Your task to perform on an android device: Open Chrome and go to settings Image 0: 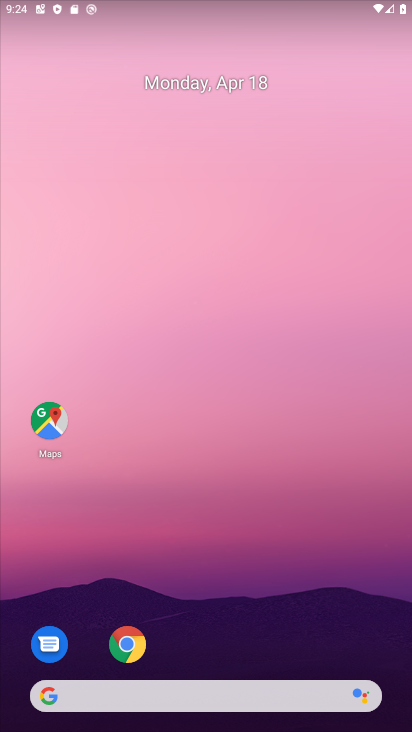
Step 0: click (133, 647)
Your task to perform on an android device: Open Chrome and go to settings Image 1: 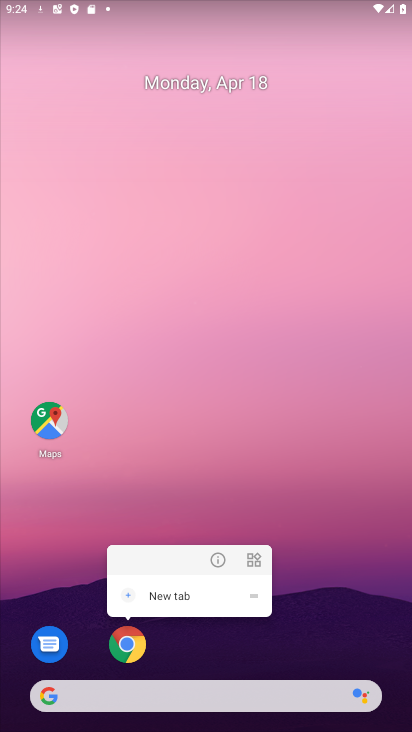
Step 1: click (122, 644)
Your task to perform on an android device: Open Chrome and go to settings Image 2: 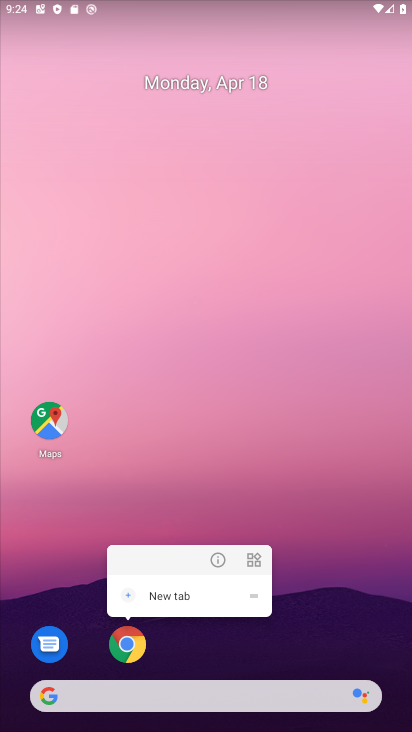
Step 2: click (119, 646)
Your task to perform on an android device: Open Chrome and go to settings Image 3: 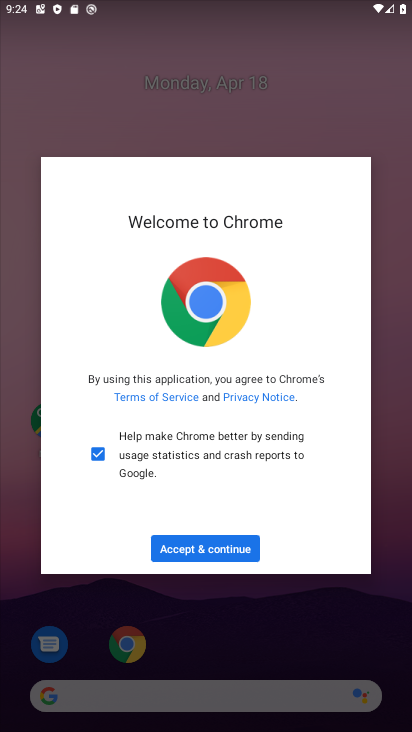
Step 3: click (226, 550)
Your task to perform on an android device: Open Chrome and go to settings Image 4: 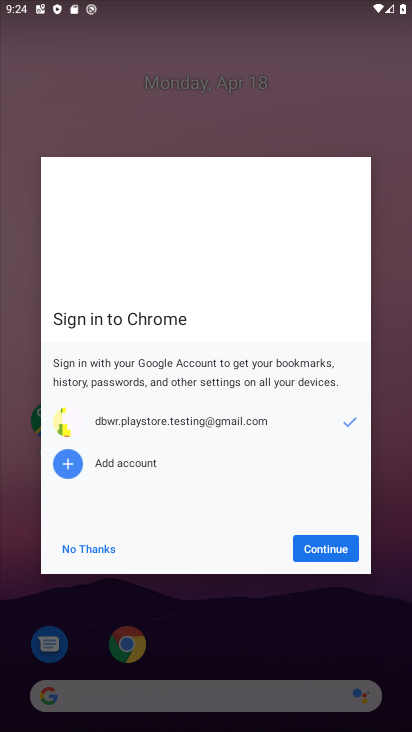
Step 4: click (303, 540)
Your task to perform on an android device: Open Chrome and go to settings Image 5: 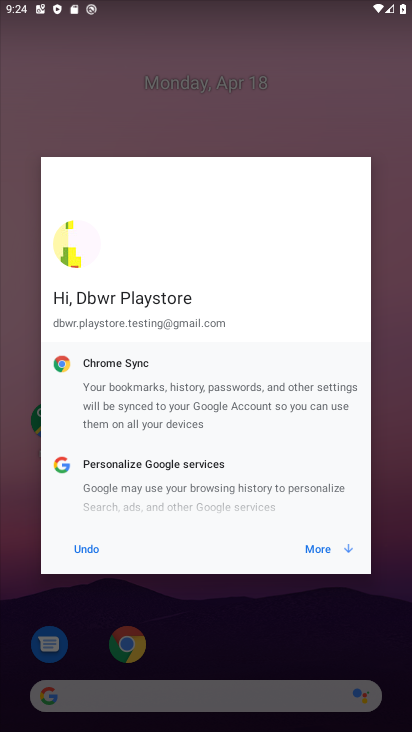
Step 5: click (307, 546)
Your task to perform on an android device: Open Chrome and go to settings Image 6: 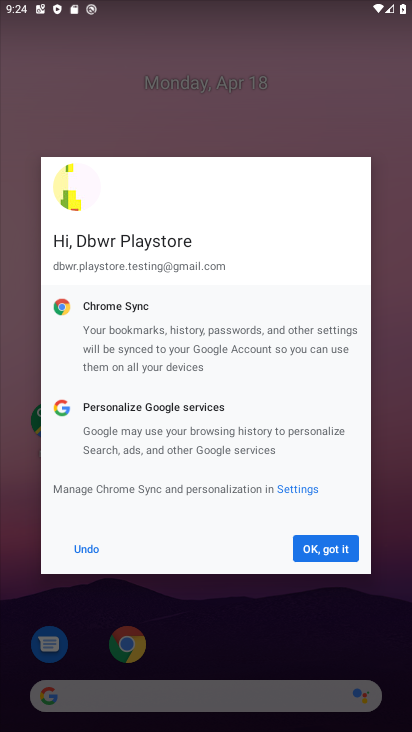
Step 6: click (307, 546)
Your task to perform on an android device: Open Chrome and go to settings Image 7: 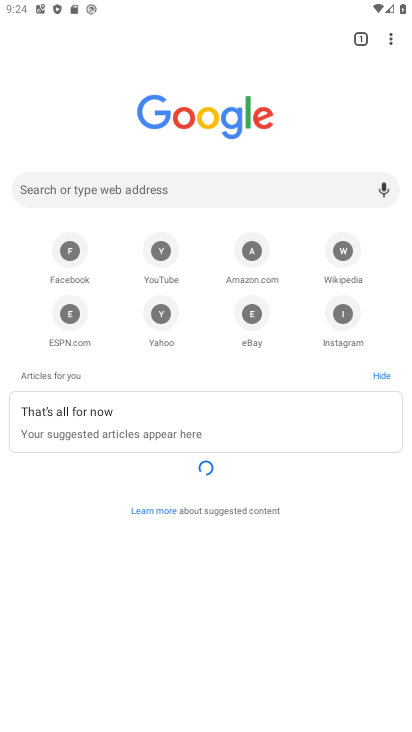
Step 7: click (391, 40)
Your task to perform on an android device: Open Chrome and go to settings Image 8: 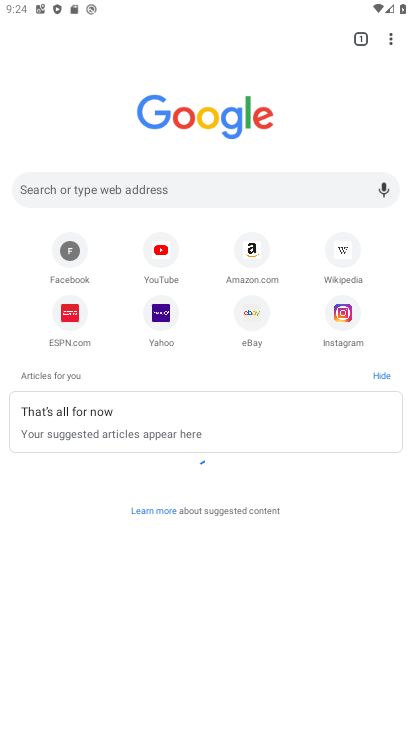
Step 8: click (390, 36)
Your task to perform on an android device: Open Chrome and go to settings Image 9: 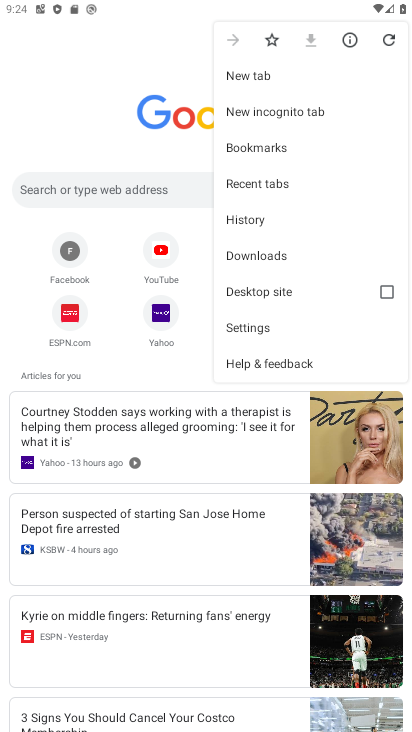
Step 9: click (253, 330)
Your task to perform on an android device: Open Chrome and go to settings Image 10: 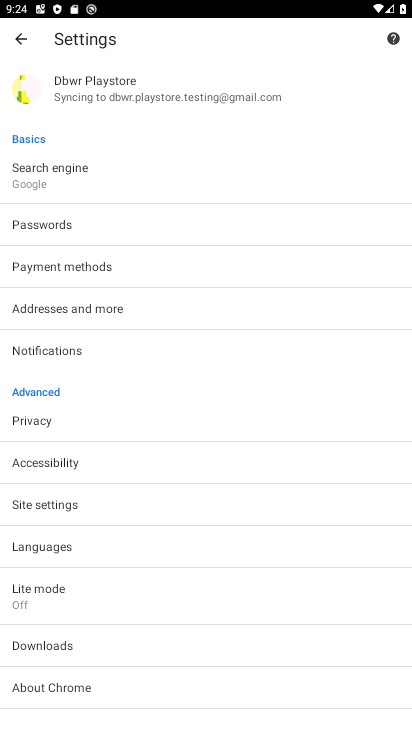
Step 10: task complete